Your task to perform on an android device: Show me productivity apps on the Play Store Image 0: 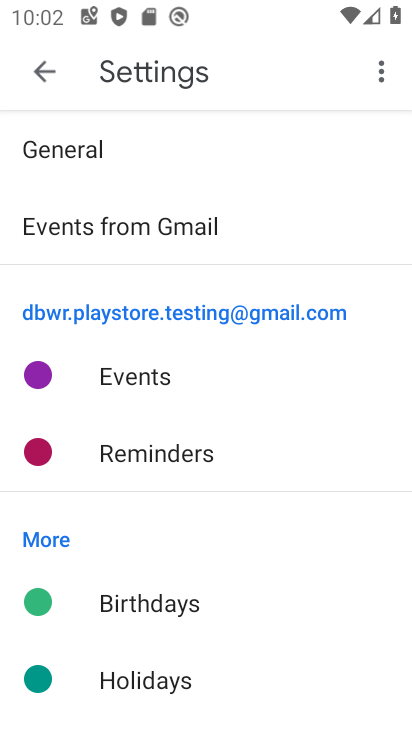
Step 0: press home button
Your task to perform on an android device: Show me productivity apps on the Play Store Image 1: 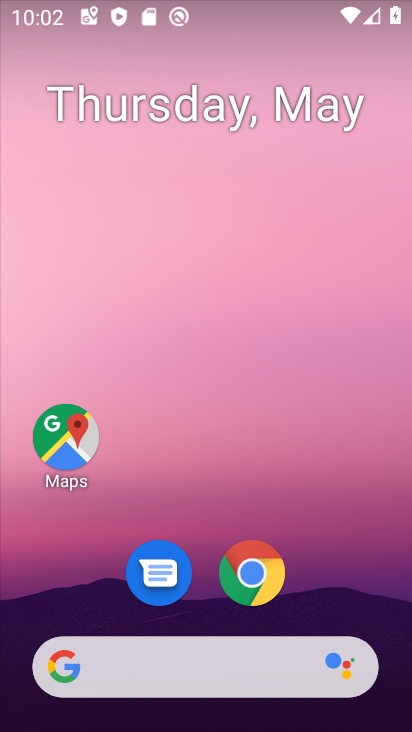
Step 1: drag from (202, 604) to (251, 154)
Your task to perform on an android device: Show me productivity apps on the Play Store Image 2: 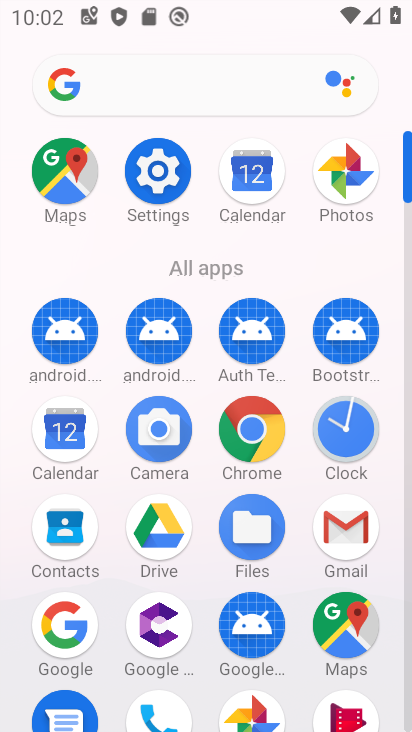
Step 2: drag from (202, 529) to (213, 235)
Your task to perform on an android device: Show me productivity apps on the Play Store Image 3: 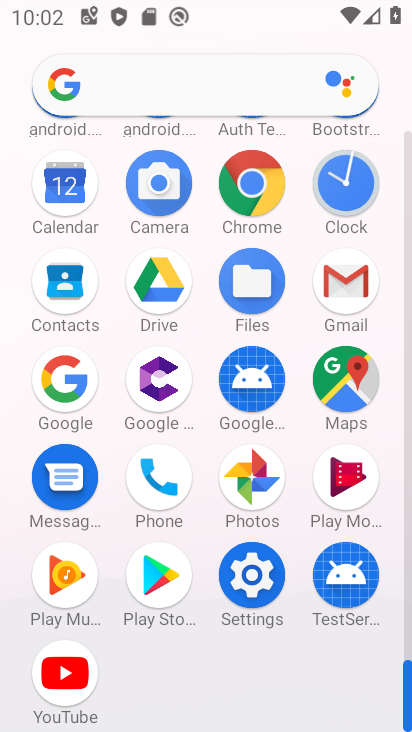
Step 3: click (157, 595)
Your task to perform on an android device: Show me productivity apps on the Play Store Image 4: 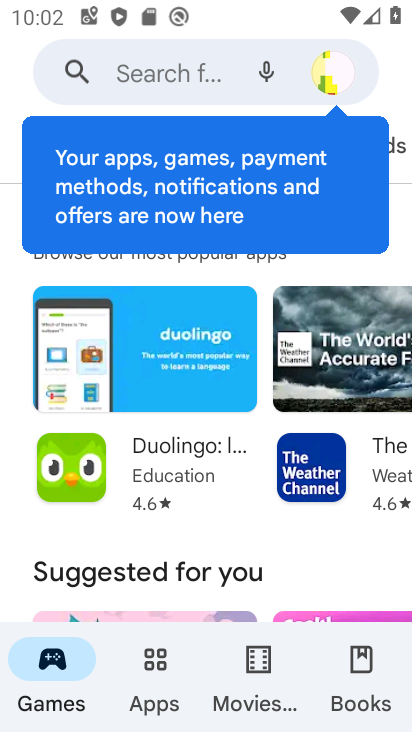
Step 4: click (164, 640)
Your task to perform on an android device: Show me productivity apps on the Play Store Image 5: 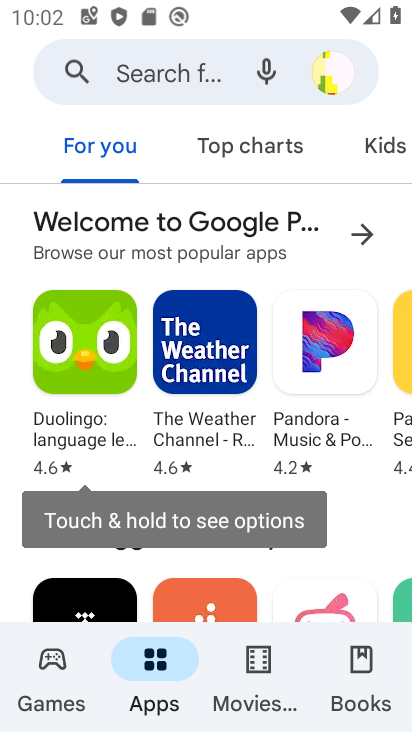
Step 5: drag from (333, 147) to (110, 148)
Your task to perform on an android device: Show me productivity apps on the Play Store Image 6: 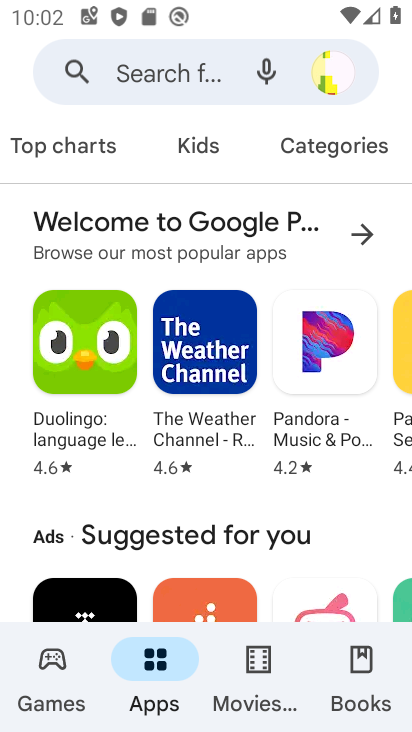
Step 6: click (320, 150)
Your task to perform on an android device: Show me productivity apps on the Play Store Image 7: 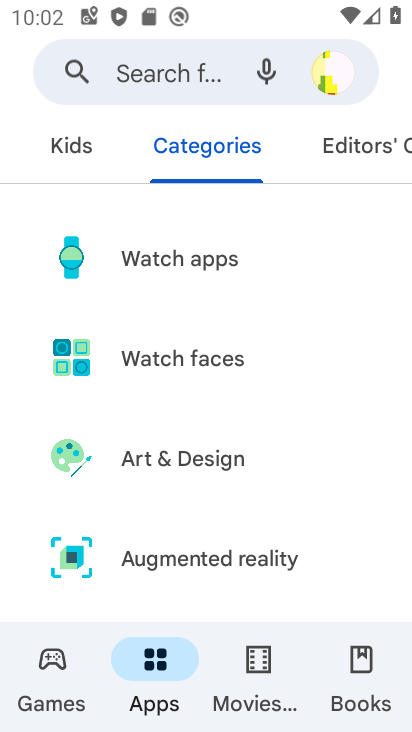
Step 7: drag from (193, 571) to (192, 288)
Your task to perform on an android device: Show me productivity apps on the Play Store Image 8: 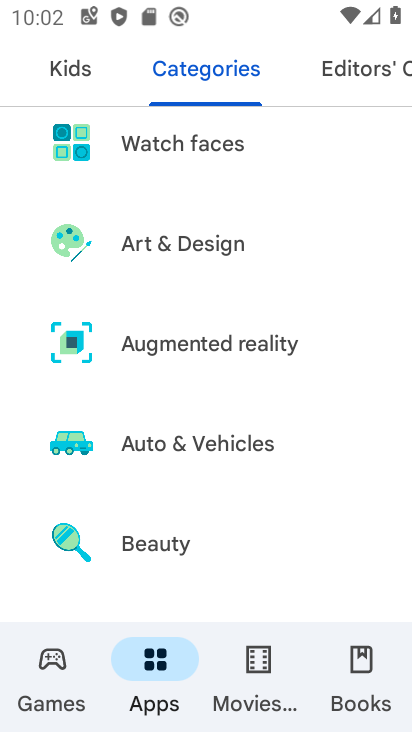
Step 8: drag from (229, 518) to (229, 209)
Your task to perform on an android device: Show me productivity apps on the Play Store Image 9: 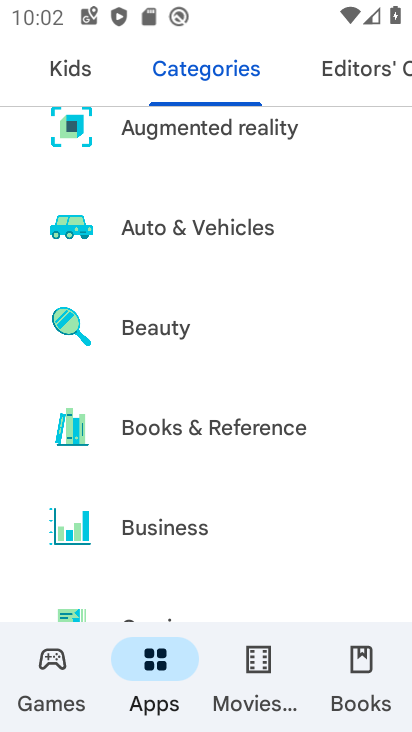
Step 9: drag from (208, 518) to (210, 245)
Your task to perform on an android device: Show me productivity apps on the Play Store Image 10: 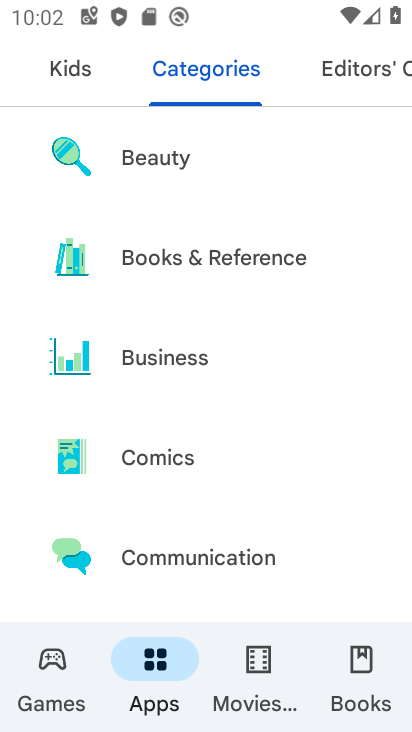
Step 10: drag from (210, 503) to (210, 249)
Your task to perform on an android device: Show me productivity apps on the Play Store Image 11: 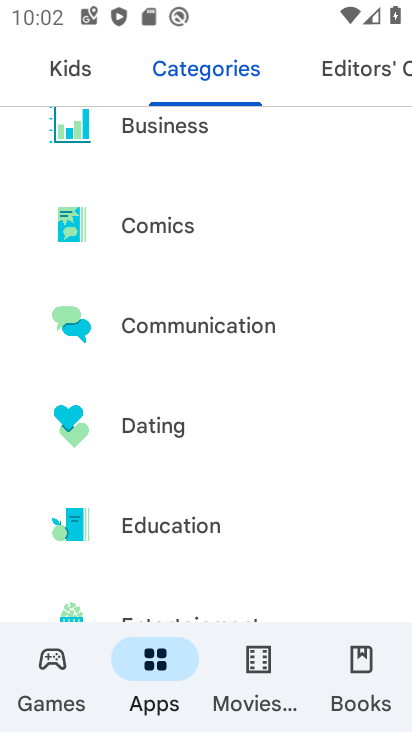
Step 11: drag from (224, 507) to (234, 243)
Your task to perform on an android device: Show me productivity apps on the Play Store Image 12: 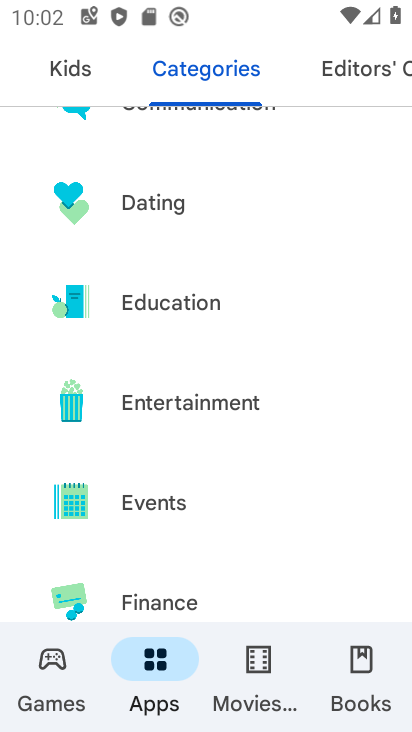
Step 12: drag from (241, 521) to (234, 249)
Your task to perform on an android device: Show me productivity apps on the Play Store Image 13: 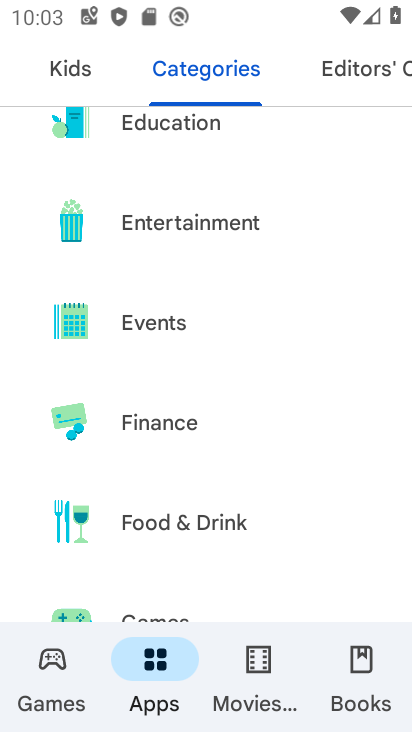
Step 13: drag from (241, 575) to (241, 304)
Your task to perform on an android device: Show me productivity apps on the Play Store Image 14: 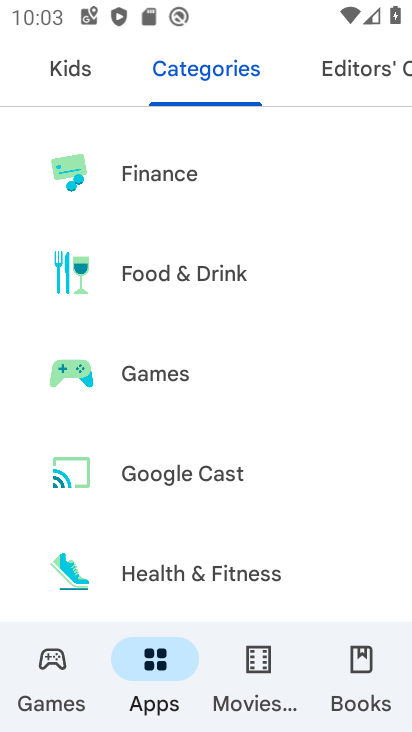
Step 14: drag from (240, 521) to (241, 260)
Your task to perform on an android device: Show me productivity apps on the Play Store Image 15: 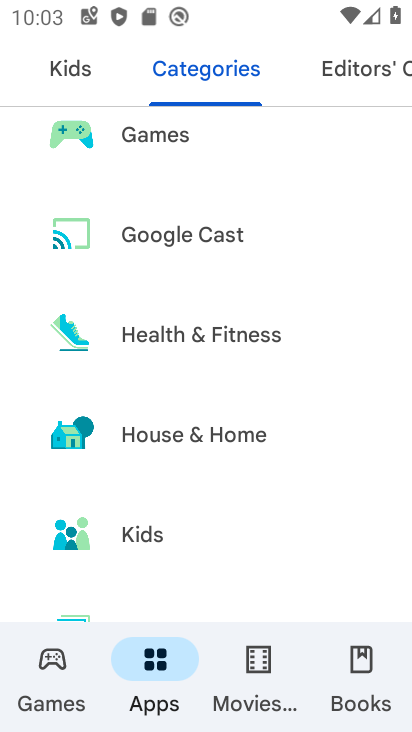
Step 15: drag from (206, 556) to (210, 262)
Your task to perform on an android device: Show me productivity apps on the Play Store Image 16: 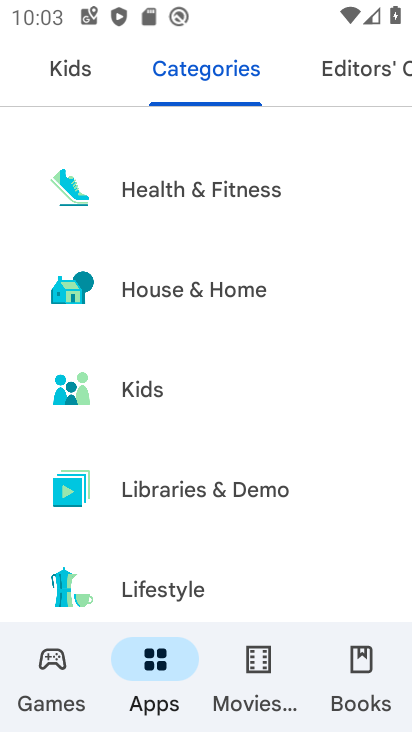
Step 16: drag from (176, 512) to (181, 252)
Your task to perform on an android device: Show me productivity apps on the Play Store Image 17: 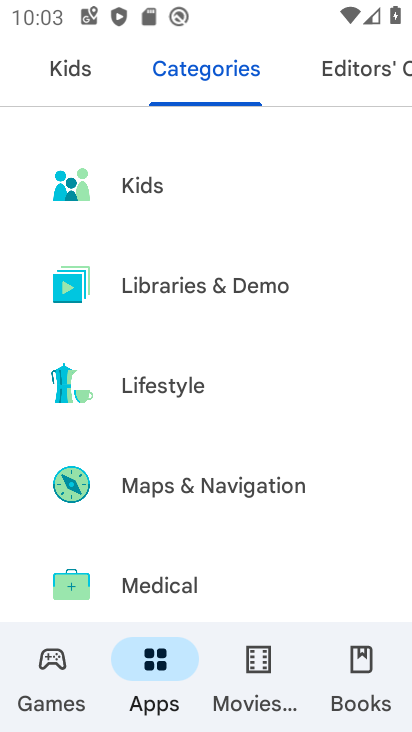
Step 17: drag from (192, 581) to (214, 267)
Your task to perform on an android device: Show me productivity apps on the Play Store Image 18: 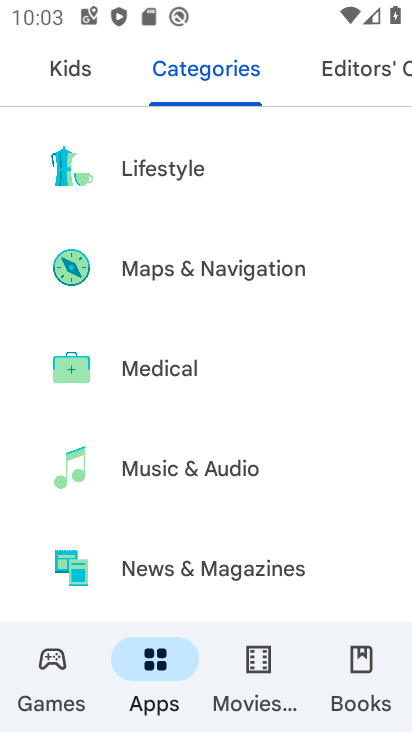
Step 18: drag from (214, 536) to (238, 257)
Your task to perform on an android device: Show me productivity apps on the Play Store Image 19: 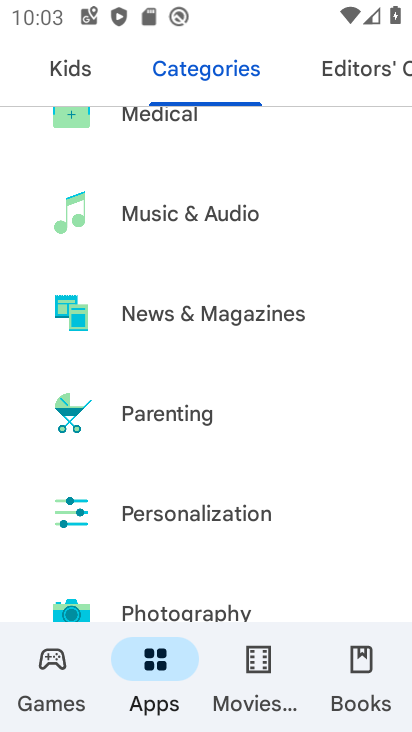
Step 19: drag from (237, 539) to (247, 294)
Your task to perform on an android device: Show me productivity apps on the Play Store Image 20: 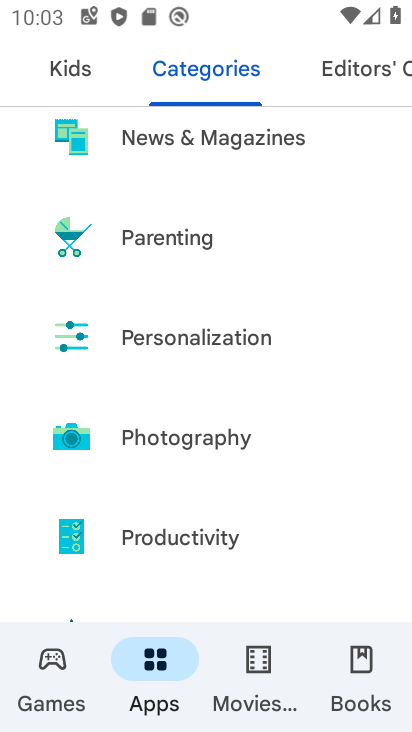
Step 20: click (229, 546)
Your task to perform on an android device: Show me productivity apps on the Play Store Image 21: 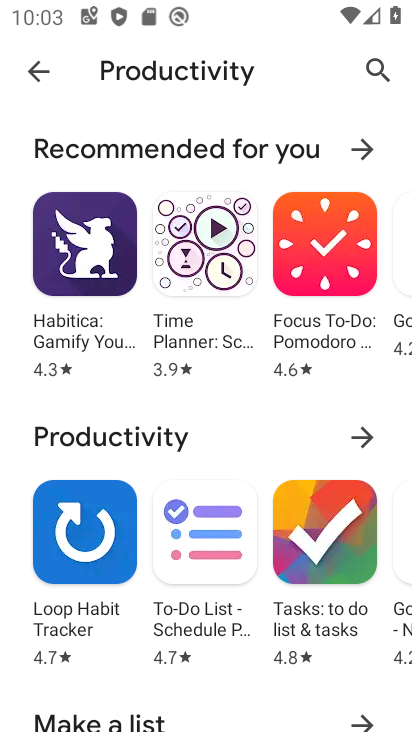
Step 21: task complete